Your task to perform on an android device: Open Google Maps and go to "Timeline" Image 0: 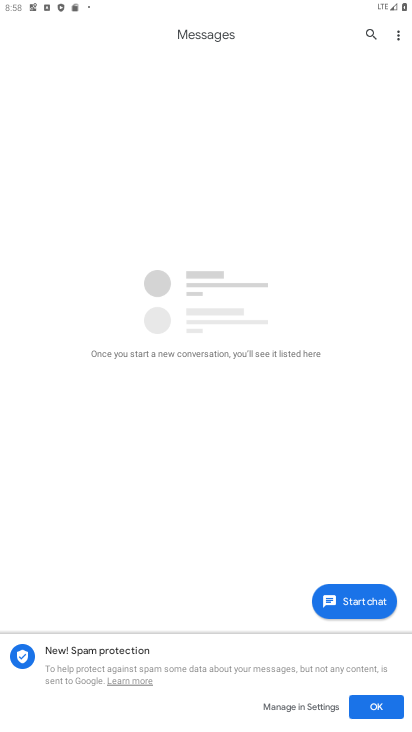
Step 0: press home button
Your task to perform on an android device: Open Google Maps and go to "Timeline" Image 1: 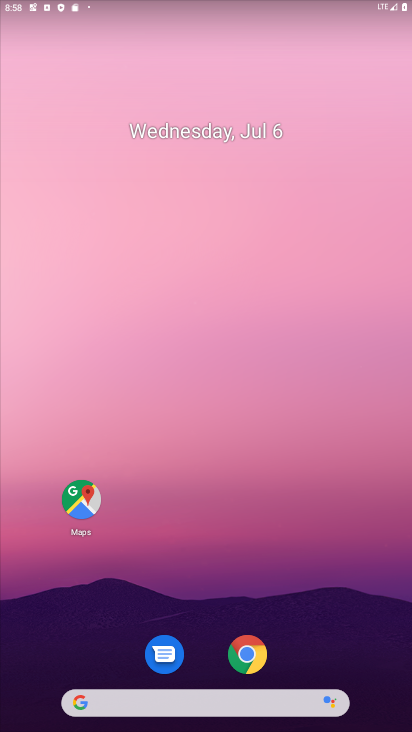
Step 1: click (93, 497)
Your task to perform on an android device: Open Google Maps and go to "Timeline" Image 2: 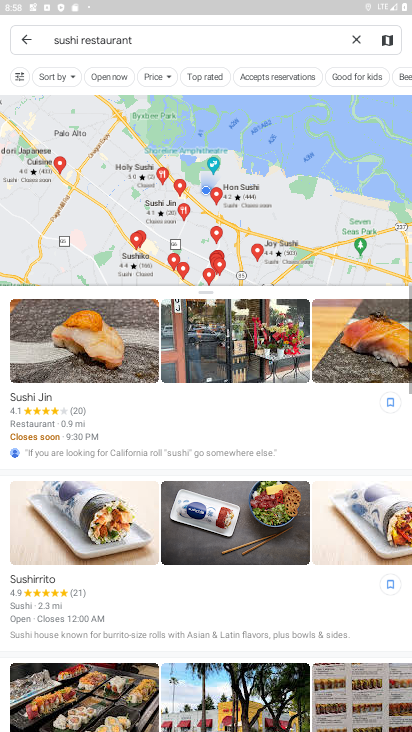
Step 2: click (23, 40)
Your task to perform on an android device: Open Google Maps and go to "Timeline" Image 3: 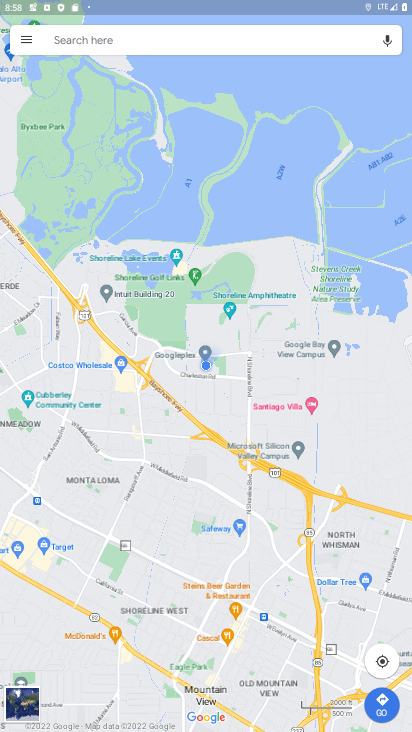
Step 3: click (23, 40)
Your task to perform on an android device: Open Google Maps and go to "Timeline" Image 4: 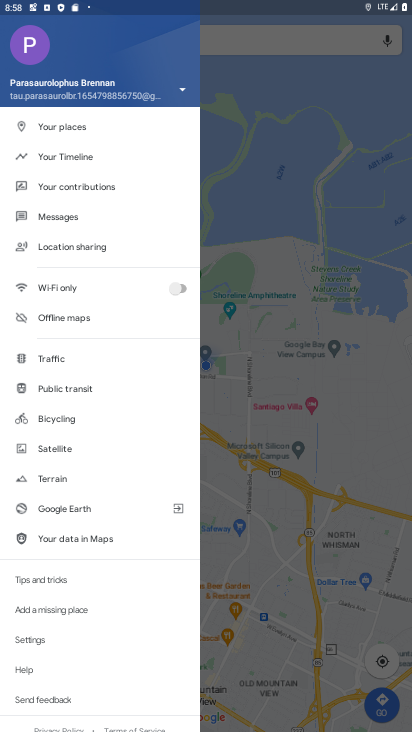
Step 4: click (103, 162)
Your task to perform on an android device: Open Google Maps and go to "Timeline" Image 5: 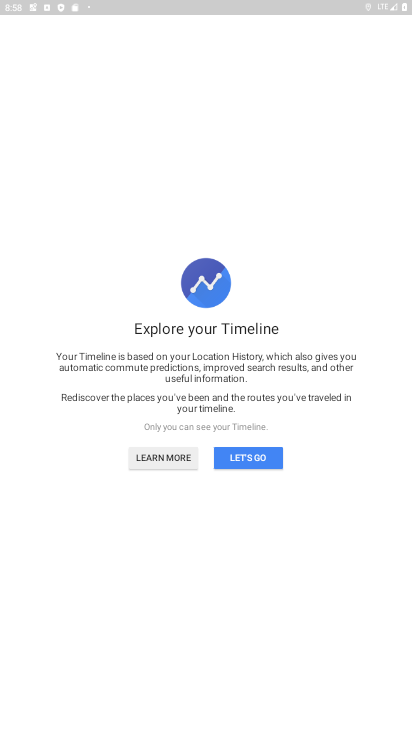
Step 5: click (248, 463)
Your task to perform on an android device: Open Google Maps and go to "Timeline" Image 6: 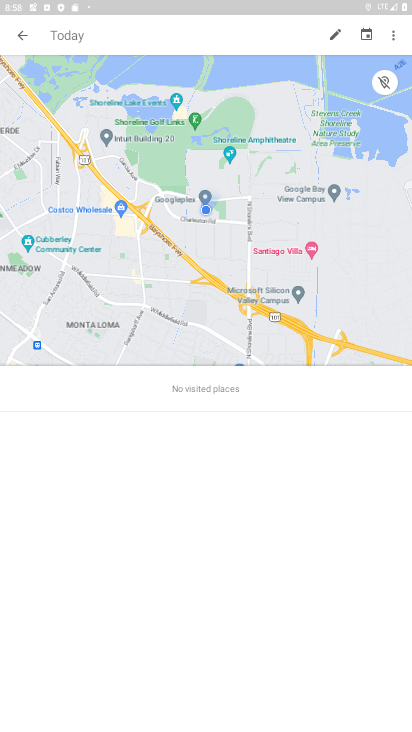
Step 6: task complete